Your task to perform on an android device: change notification settings in the gmail app Image 0: 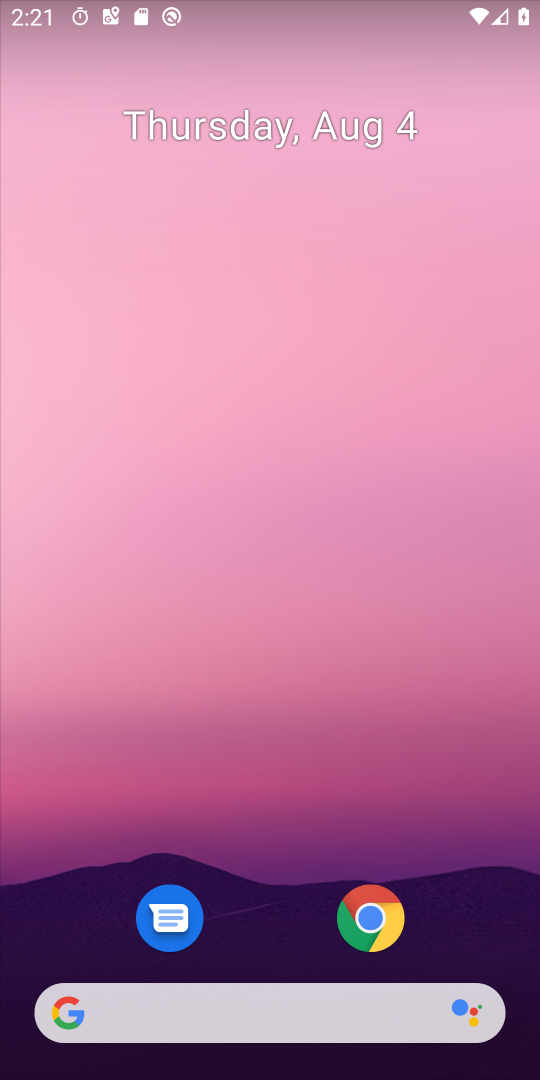
Step 0: drag from (251, 890) to (309, 349)
Your task to perform on an android device: change notification settings in the gmail app Image 1: 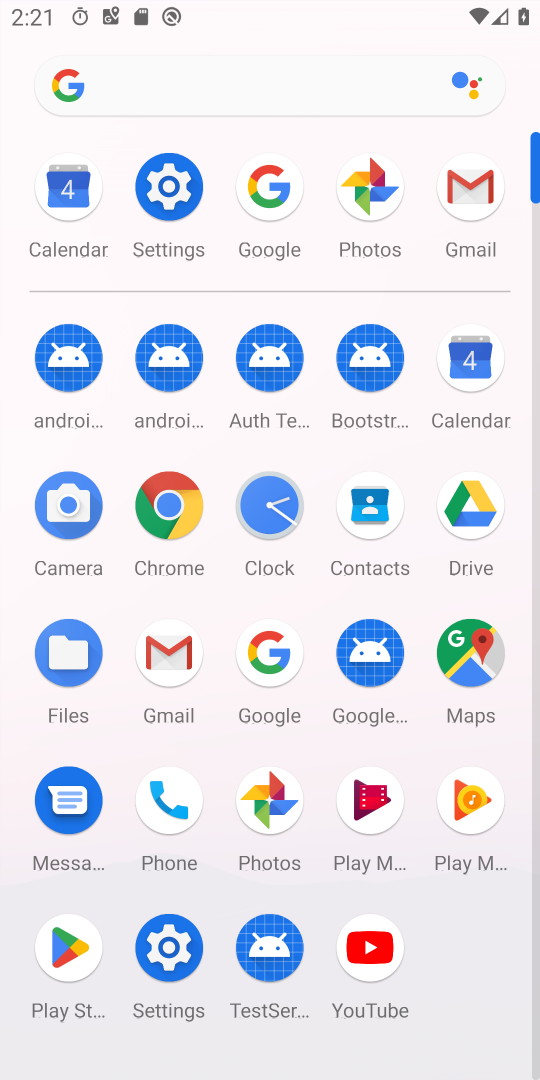
Step 1: click (462, 226)
Your task to perform on an android device: change notification settings in the gmail app Image 2: 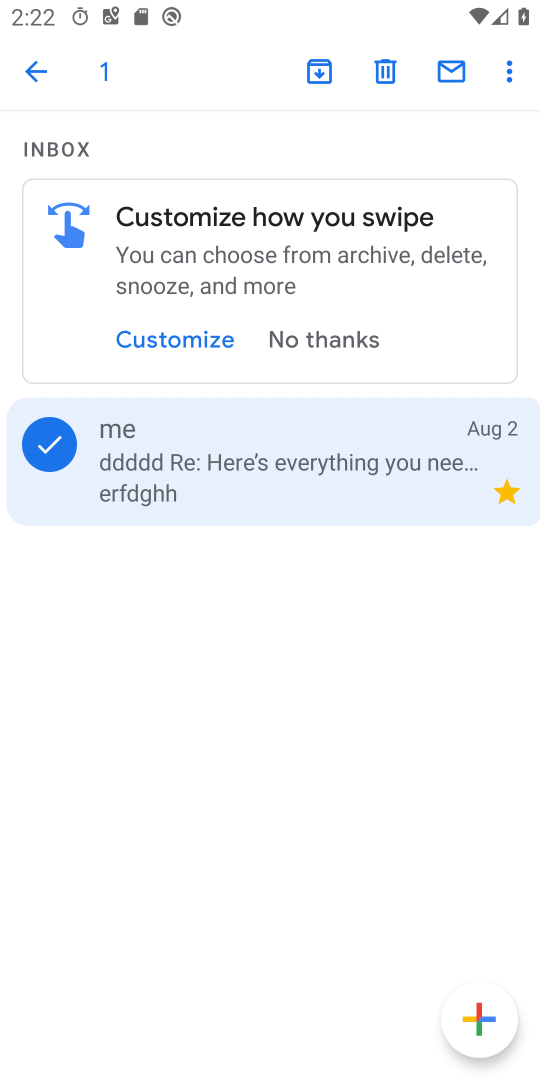
Step 2: click (32, 72)
Your task to perform on an android device: change notification settings in the gmail app Image 3: 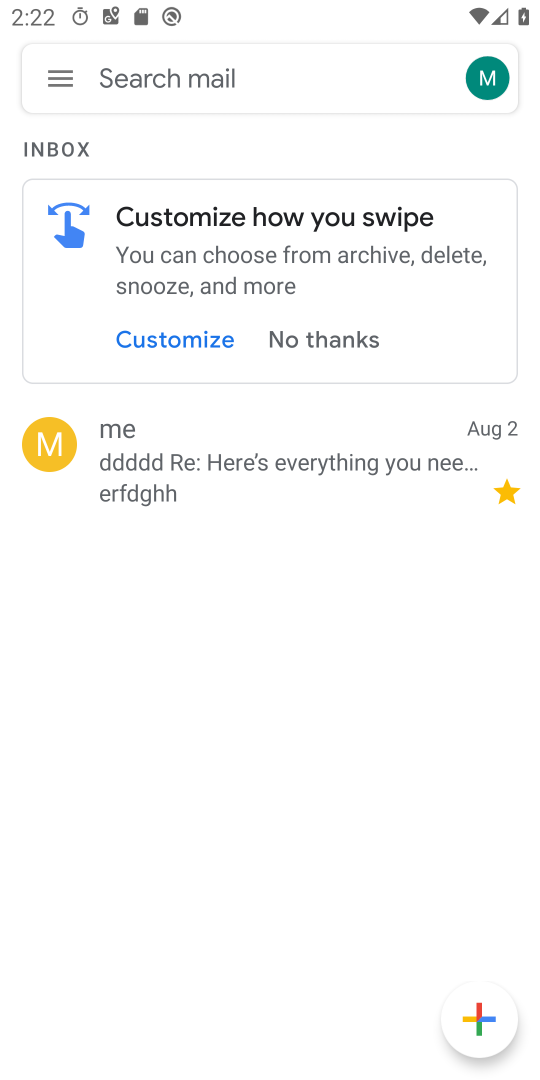
Step 3: click (32, 72)
Your task to perform on an android device: change notification settings in the gmail app Image 4: 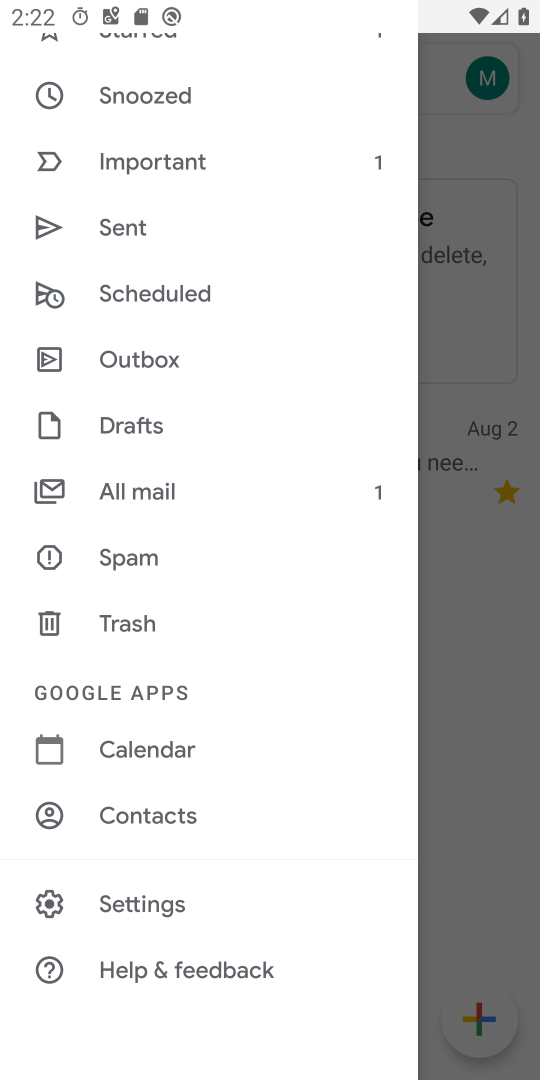
Step 4: click (216, 888)
Your task to perform on an android device: change notification settings in the gmail app Image 5: 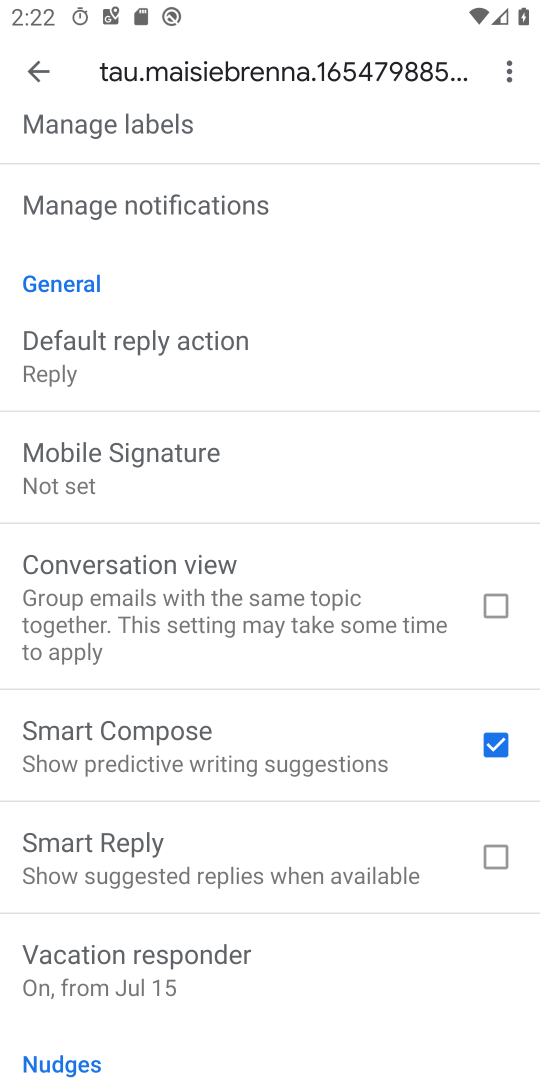
Step 5: click (203, 214)
Your task to perform on an android device: change notification settings in the gmail app Image 6: 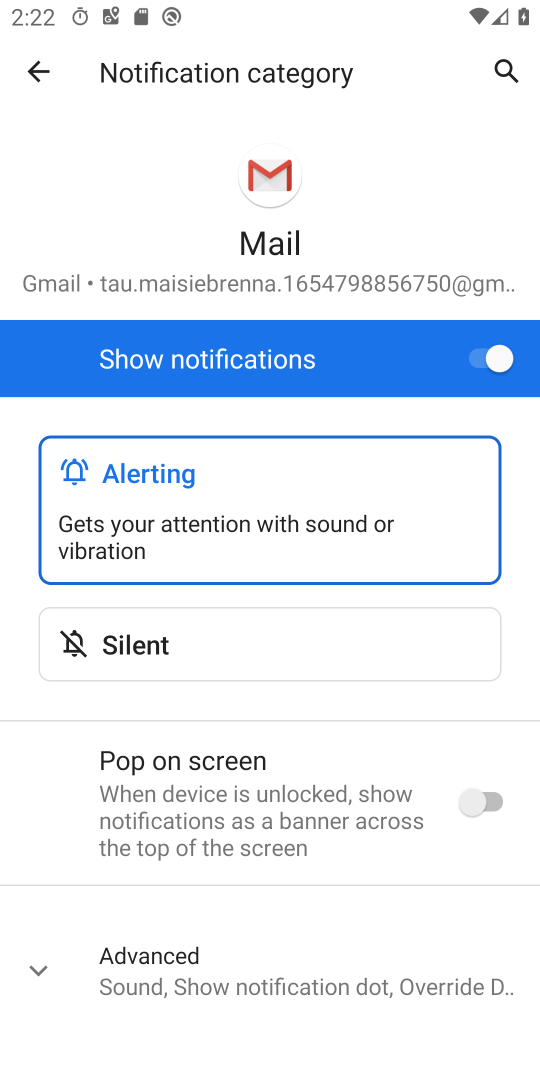
Step 6: click (483, 365)
Your task to perform on an android device: change notification settings in the gmail app Image 7: 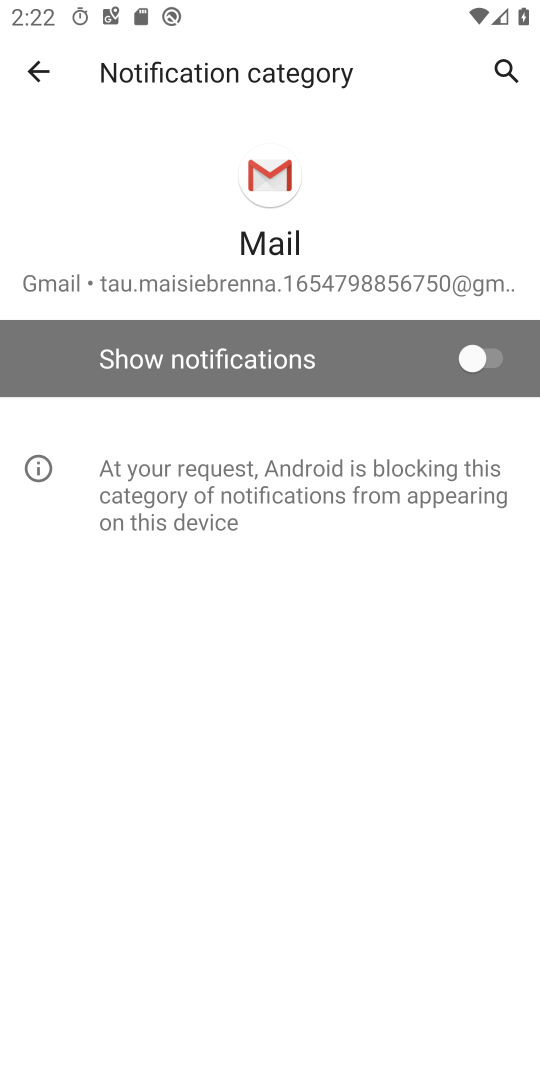
Step 7: task complete